Your task to perform on an android device: Open Wikipedia Image 0: 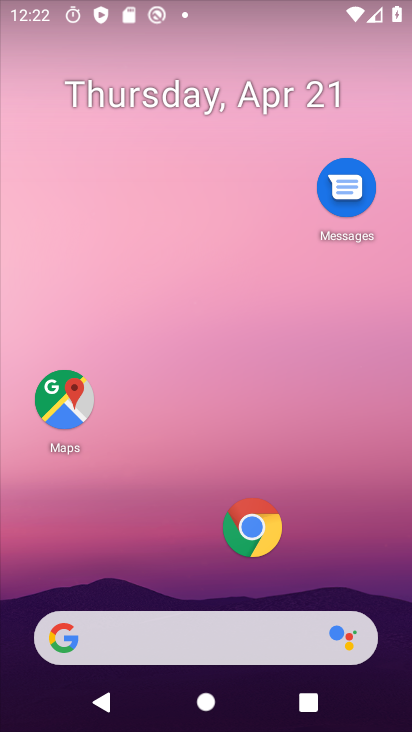
Step 0: click (242, 522)
Your task to perform on an android device: Open Wikipedia Image 1: 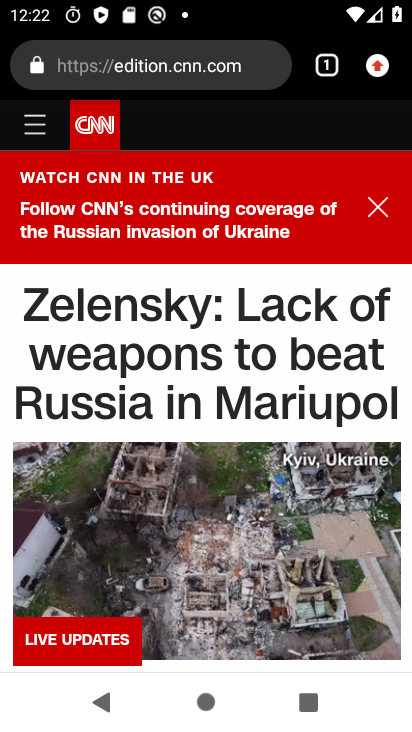
Step 1: click (129, 64)
Your task to perform on an android device: Open Wikipedia Image 2: 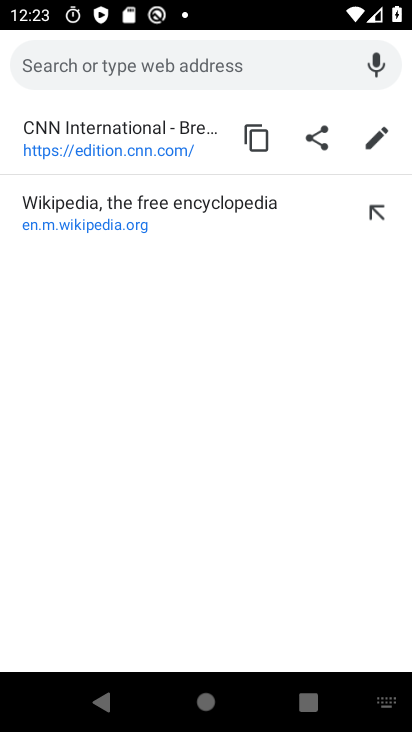
Step 2: type "wikipedia"
Your task to perform on an android device: Open Wikipedia Image 3: 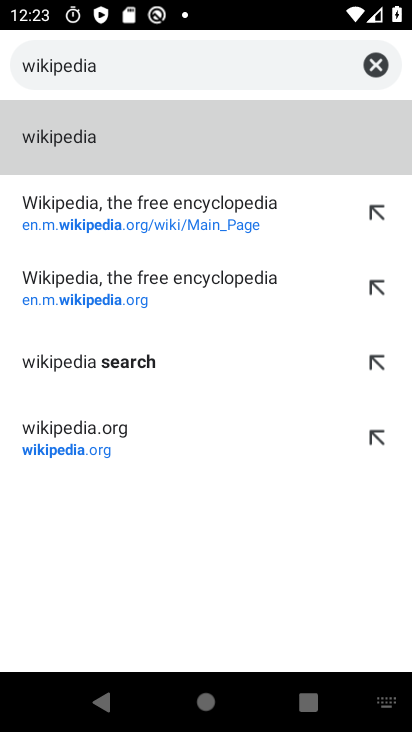
Step 3: click (53, 130)
Your task to perform on an android device: Open Wikipedia Image 4: 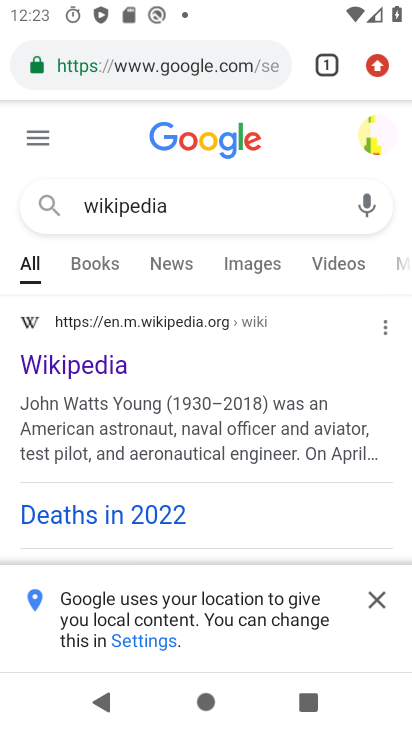
Step 4: click (67, 367)
Your task to perform on an android device: Open Wikipedia Image 5: 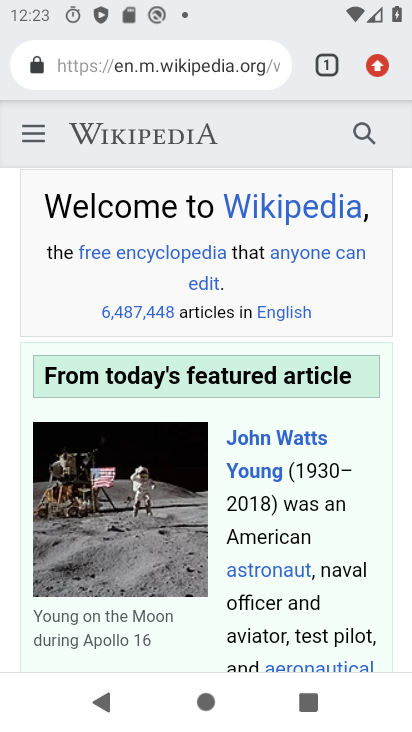
Step 5: task complete